Your task to perform on an android device: turn off translation in the chrome app Image 0: 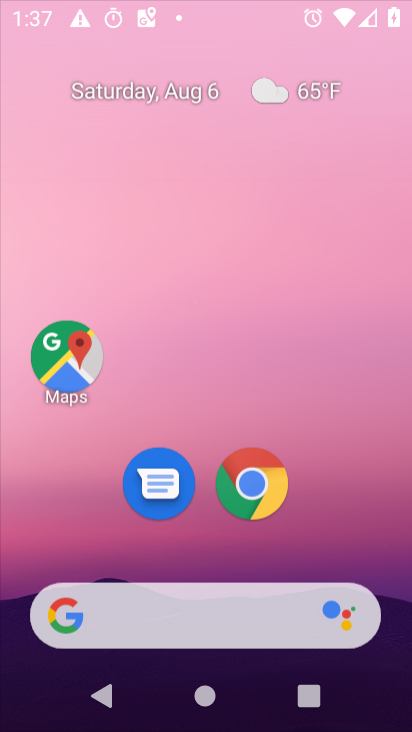
Step 0: drag from (228, 125) to (242, 41)
Your task to perform on an android device: turn off translation in the chrome app Image 1: 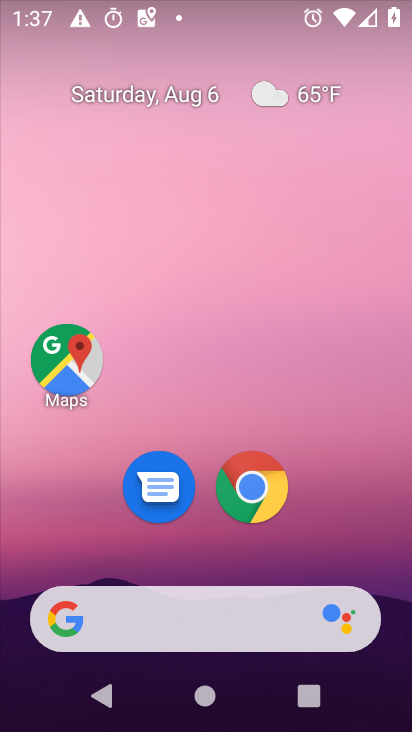
Step 1: drag from (184, 546) to (276, 7)
Your task to perform on an android device: turn off translation in the chrome app Image 2: 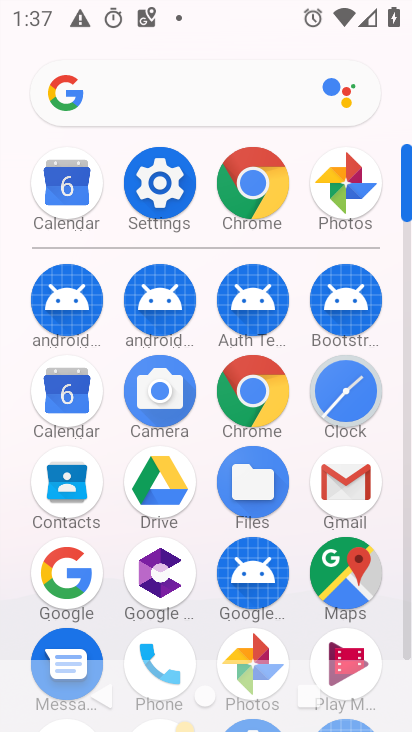
Step 2: click (345, 399)
Your task to perform on an android device: turn off translation in the chrome app Image 3: 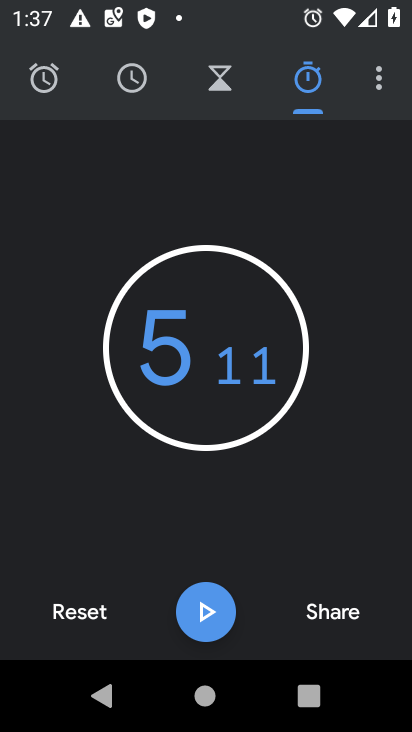
Step 3: press back button
Your task to perform on an android device: turn off translation in the chrome app Image 4: 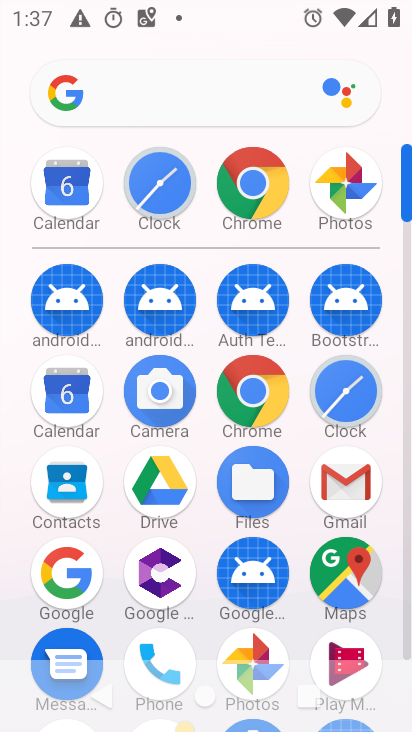
Step 4: click (244, 183)
Your task to perform on an android device: turn off translation in the chrome app Image 5: 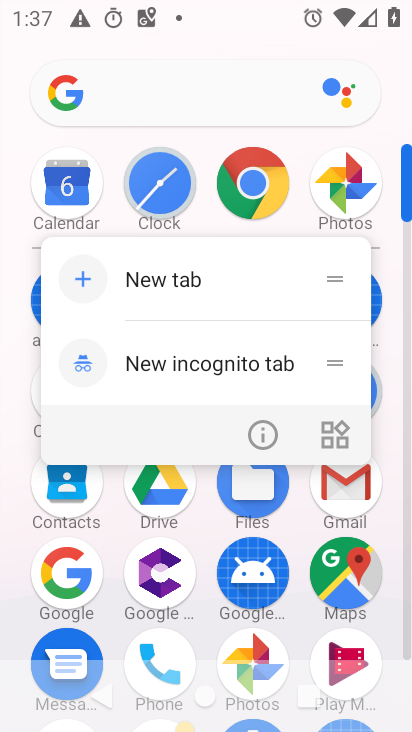
Step 5: click (244, 182)
Your task to perform on an android device: turn off translation in the chrome app Image 6: 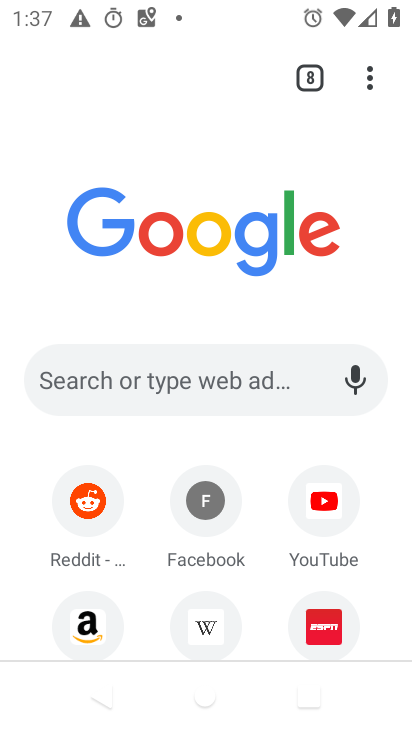
Step 6: drag from (361, 76) to (165, 543)
Your task to perform on an android device: turn off translation in the chrome app Image 7: 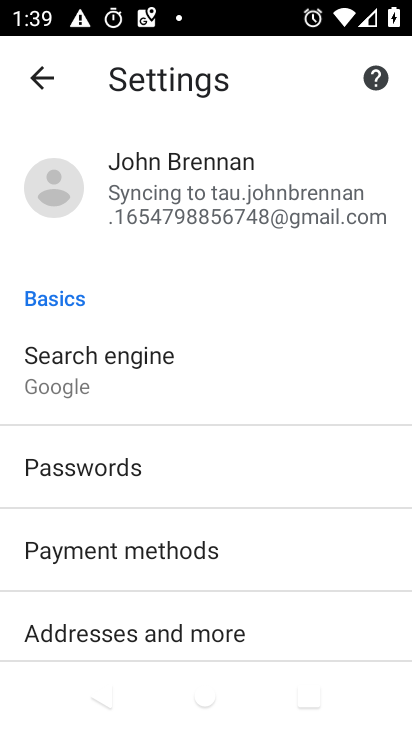
Step 7: drag from (72, 626) to (194, 96)
Your task to perform on an android device: turn off translation in the chrome app Image 8: 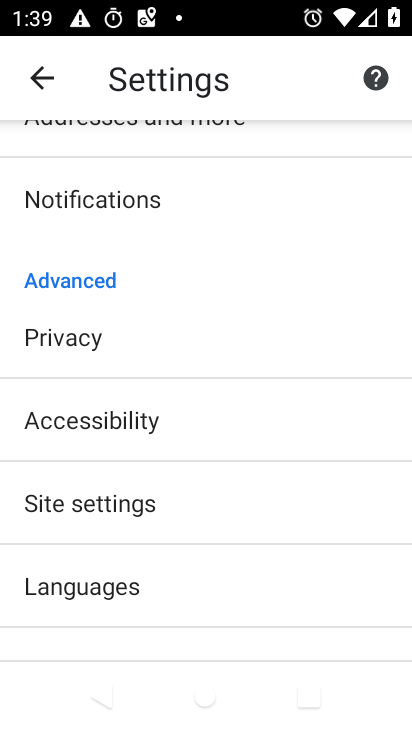
Step 8: drag from (175, 563) to (205, 396)
Your task to perform on an android device: turn off translation in the chrome app Image 9: 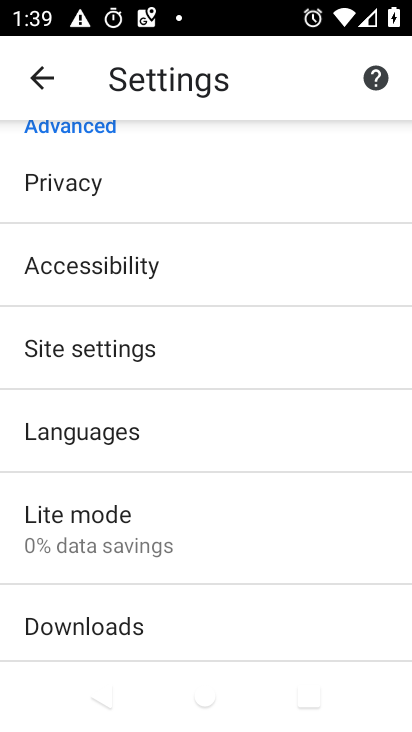
Step 9: click (70, 433)
Your task to perform on an android device: turn off translation in the chrome app Image 10: 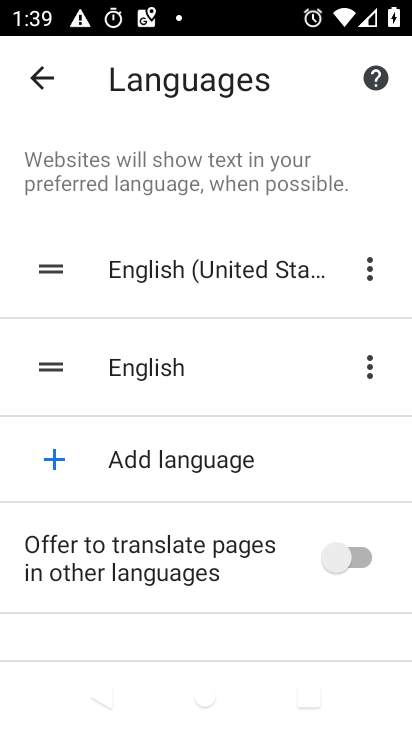
Step 10: task complete